Your task to perform on an android device: check storage Image 0: 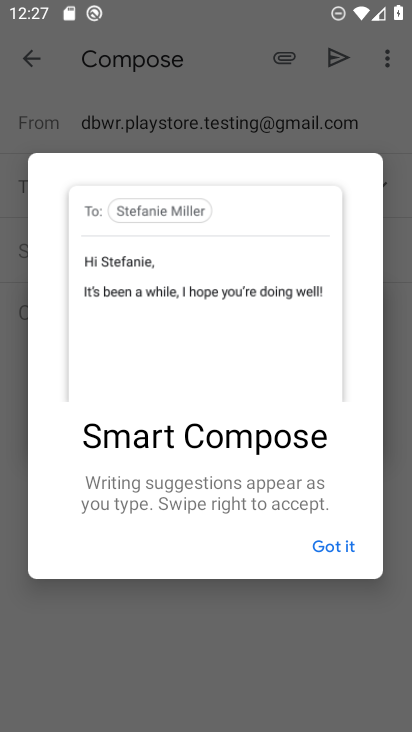
Step 0: press home button
Your task to perform on an android device: check storage Image 1: 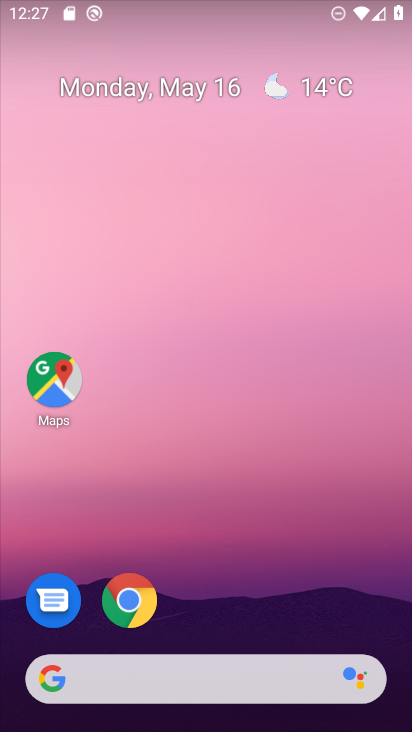
Step 1: drag from (223, 635) to (244, 55)
Your task to perform on an android device: check storage Image 2: 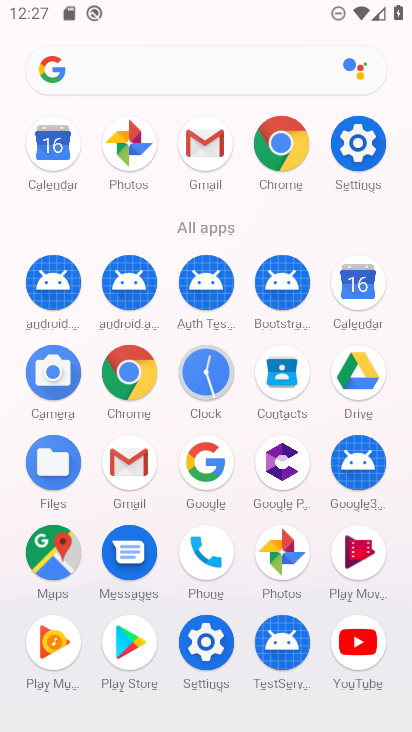
Step 2: click (359, 135)
Your task to perform on an android device: check storage Image 3: 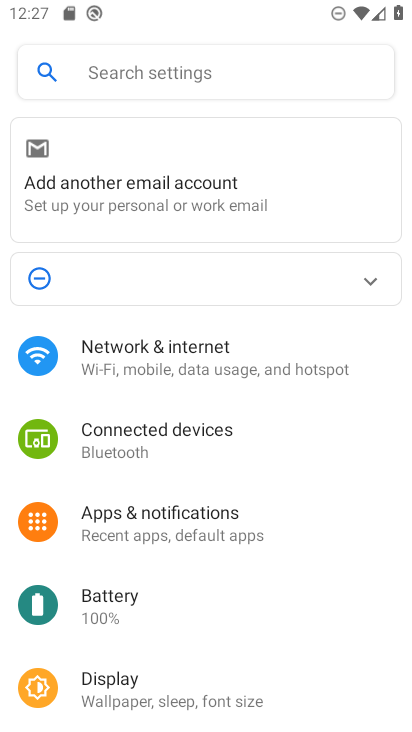
Step 3: drag from (184, 657) to (197, 149)
Your task to perform on an android device: check storage Image 4: 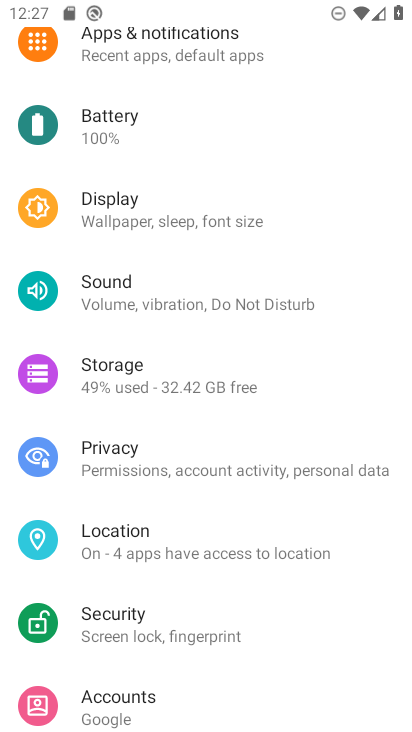
Step 4: click (154, 356)
Your task to perform on an android device: check storage Image 5: 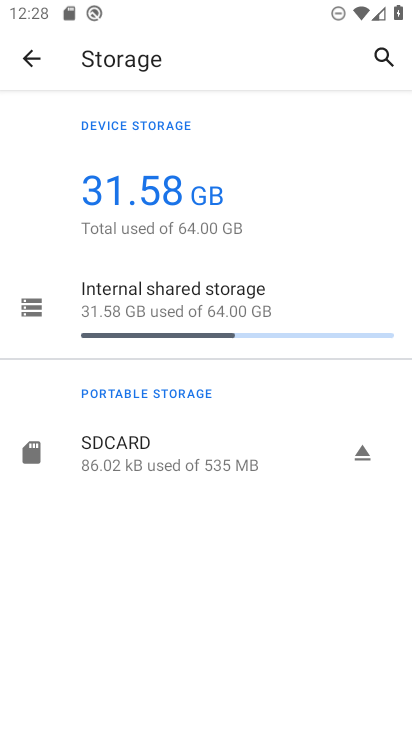
Step 5: task complete